Your task to perform on an android device: Check the news Image 0: 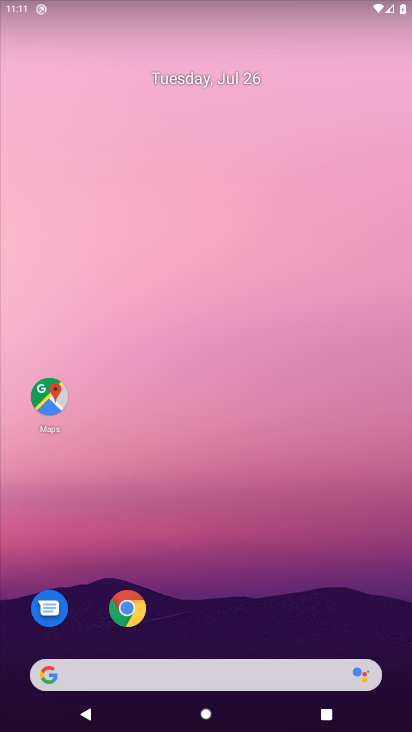
Step 0: drag from (308, 0) to (212, 9)
Your task to perform on an android device: Check the news Image 1: 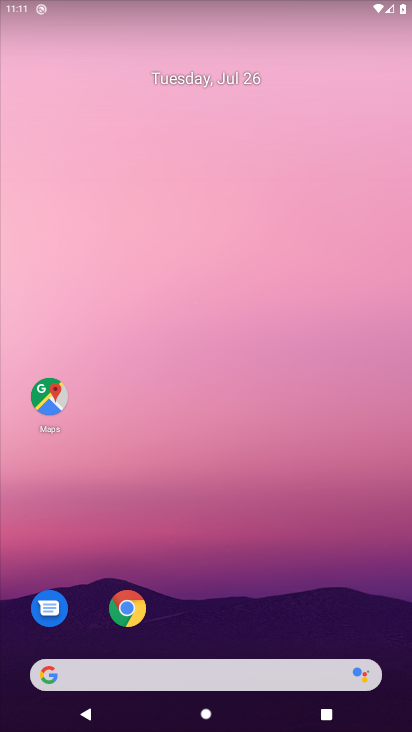
Step 1: drag from (209, 612) to (242, 94)
Your task to perform on an android device: Check the news Image 2: 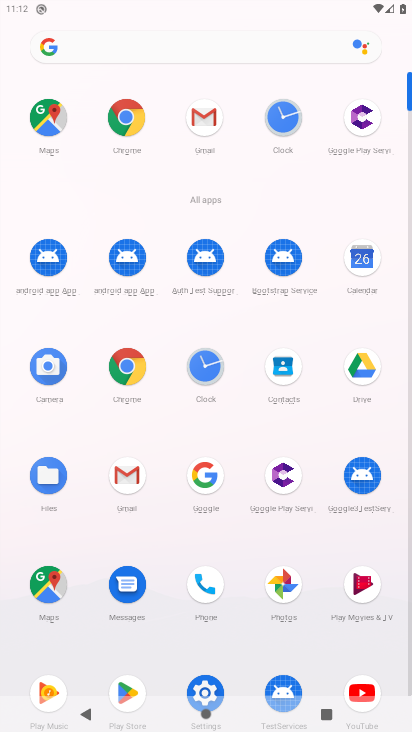
Step 2: click (202, 42)
Your task to perform on an android device: Check the news Image 3: 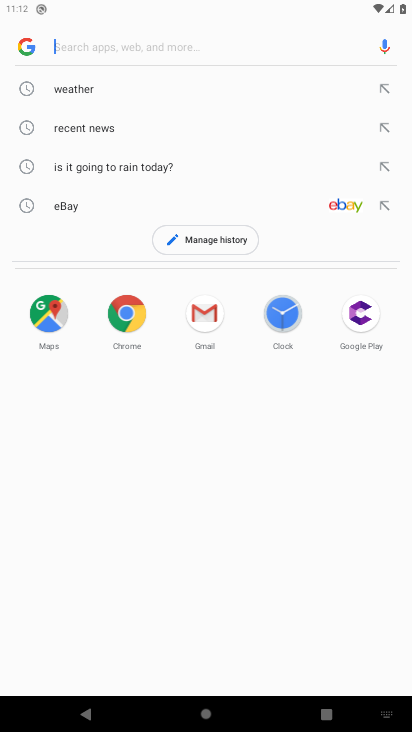
Step 3: type "news"
Your task to perform on an android device: Check the news Image 4: 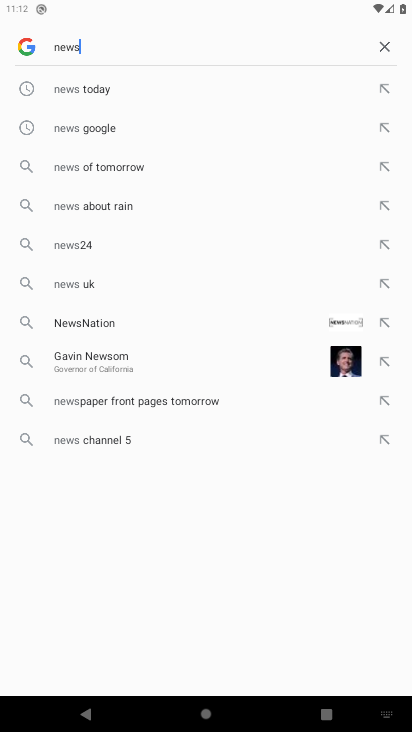
Step 4: click (101, 88)
Your task to perform on an android device: Check the news Image 5: 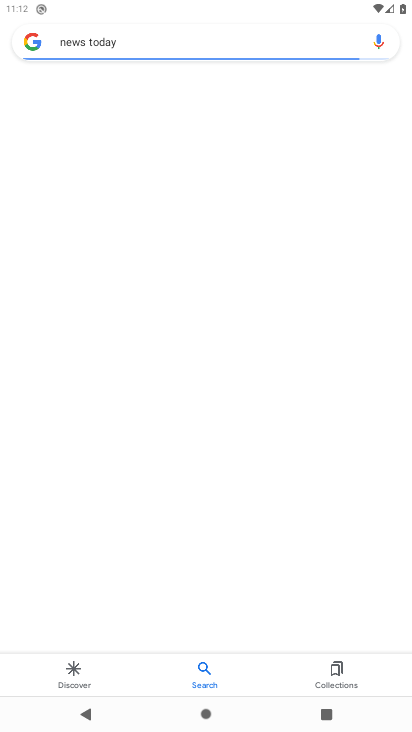
Step 5: task complete